Your task to perform on an android device: Go to sound settings Image 0: 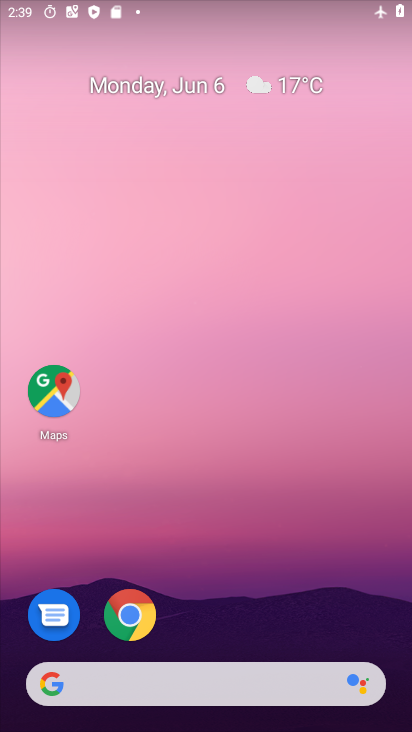
Step 0: drag from (249, 112) to (245, 154)
Your task to perform on an android device: Go to sound settings Image 1: 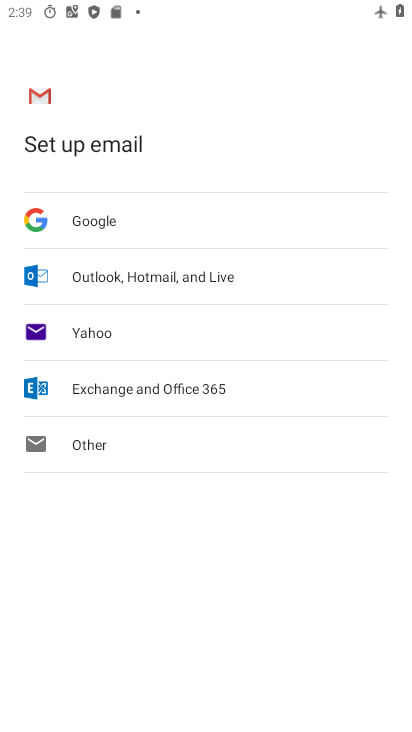
Step 1: press home button
Your task to perform on an android device: Go to sound settings Image 2: 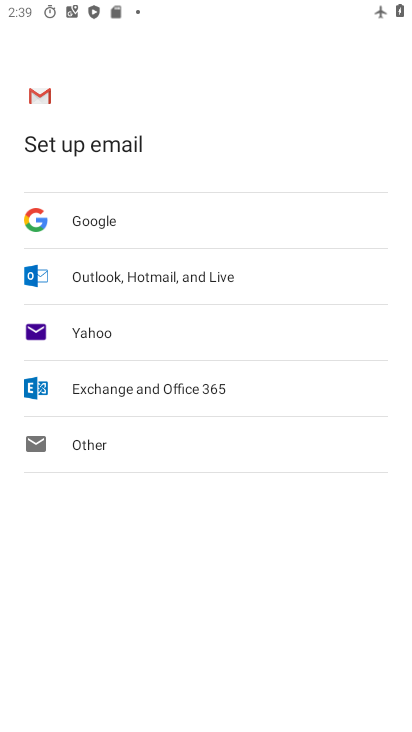
Step 2: drag from (184, 639) to (310, 154)
Your task to perform on an android device: Go to sound settings Image 3: 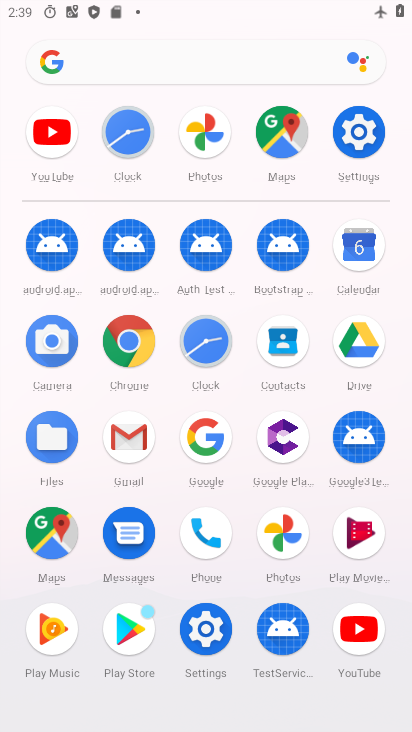
Step 3: click (346, 135)
Your task to perform on an android device: Go to sound settings Image 4: 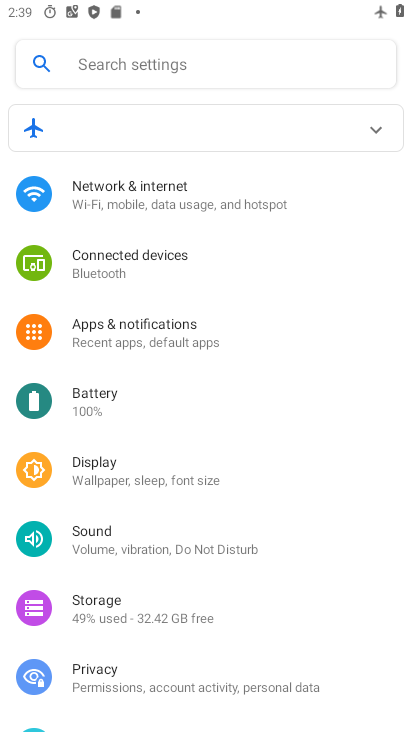
Step 4: drag from (222, 572) to (277, 185)
Your task to perform on an android device: Go to sound settings Image 5: 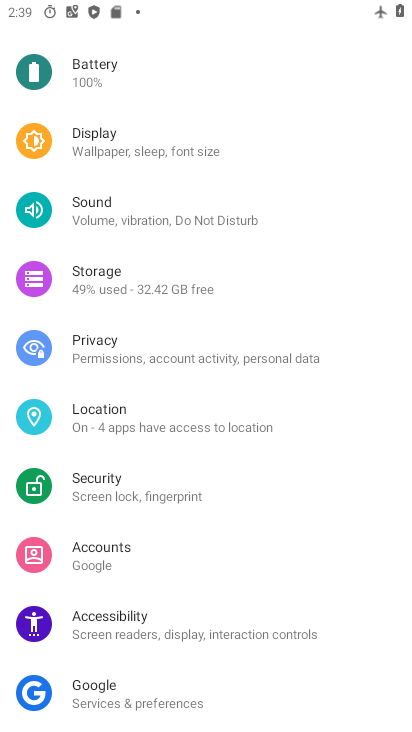
Step 5: click (111, 255)
Your task to perform on an android device: Go to sound settings Image 6: 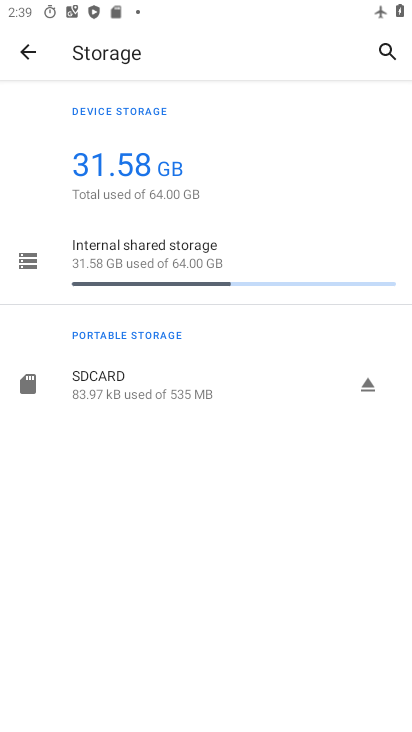
Step 6: click (33, 68)
Your task to perform on an android device: Go to sound settings Image 7: 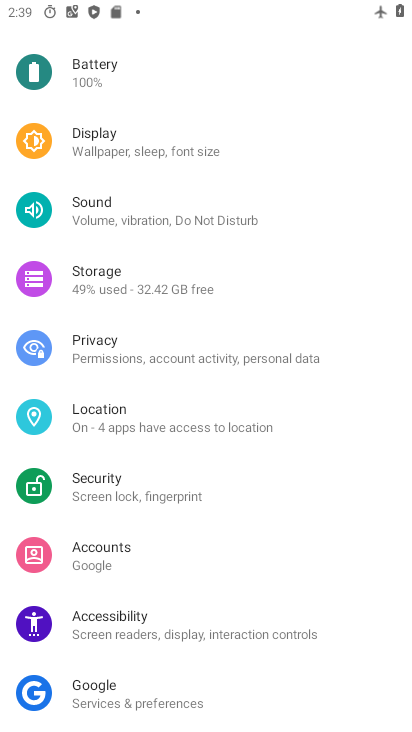
Step 7: click (105, 222)
Your task to perform on an android device: Go to sound settings Image 8: 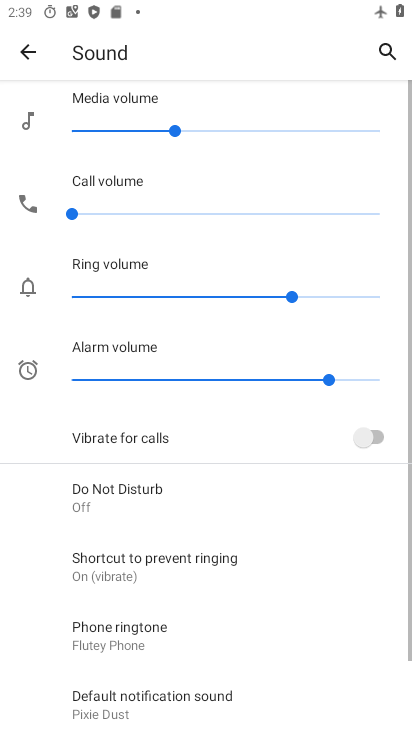
Step 8: task complete